Your task to perform on an android device: check out phone information Image 0: 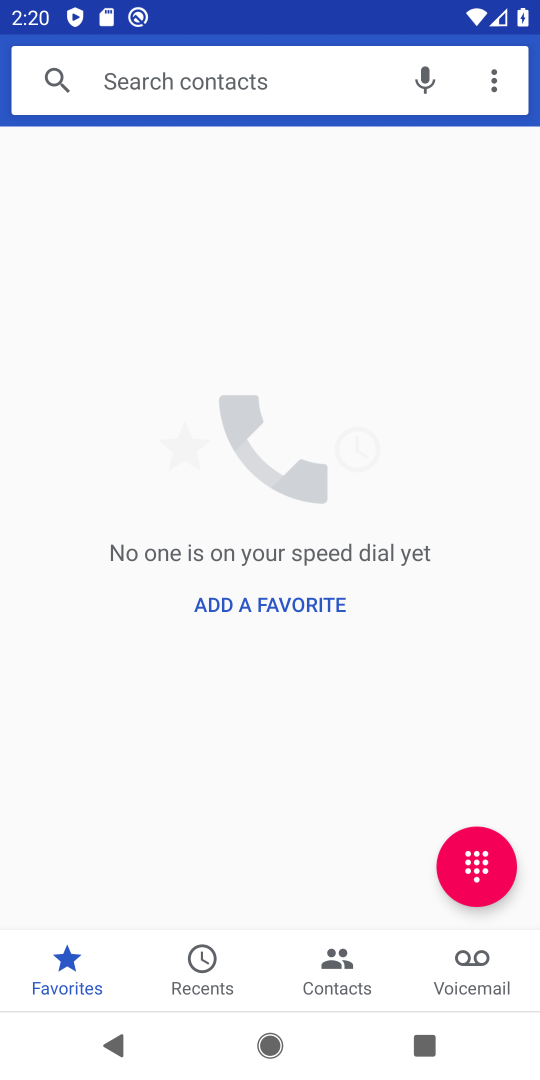
Step 0: press home button
Your task to perform on an android device: check out phone information Image 1: 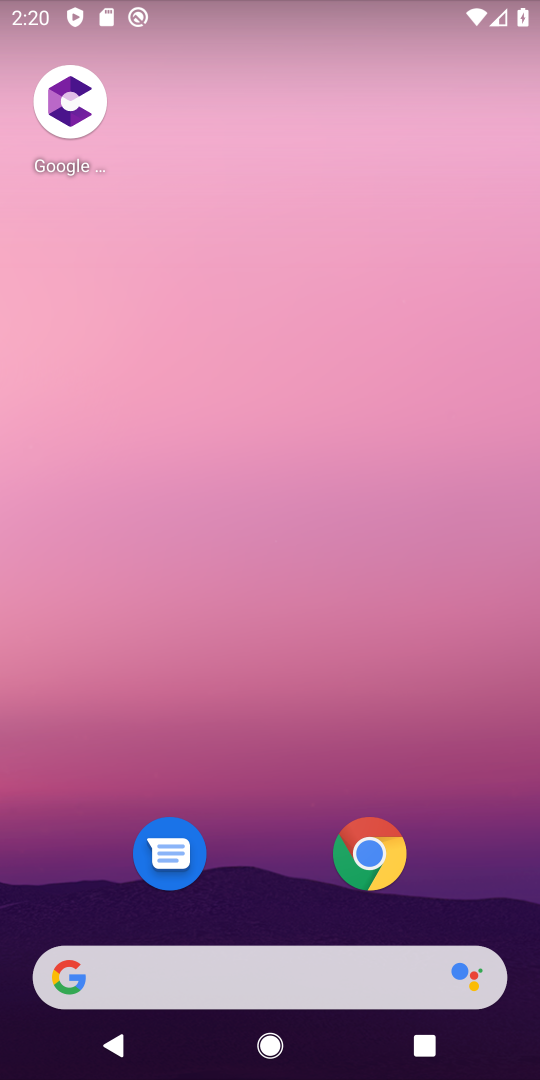
Step 1: drag from (298, 827) to (304, 185)
Your task to perform on an android device: check out phone information Image 2: 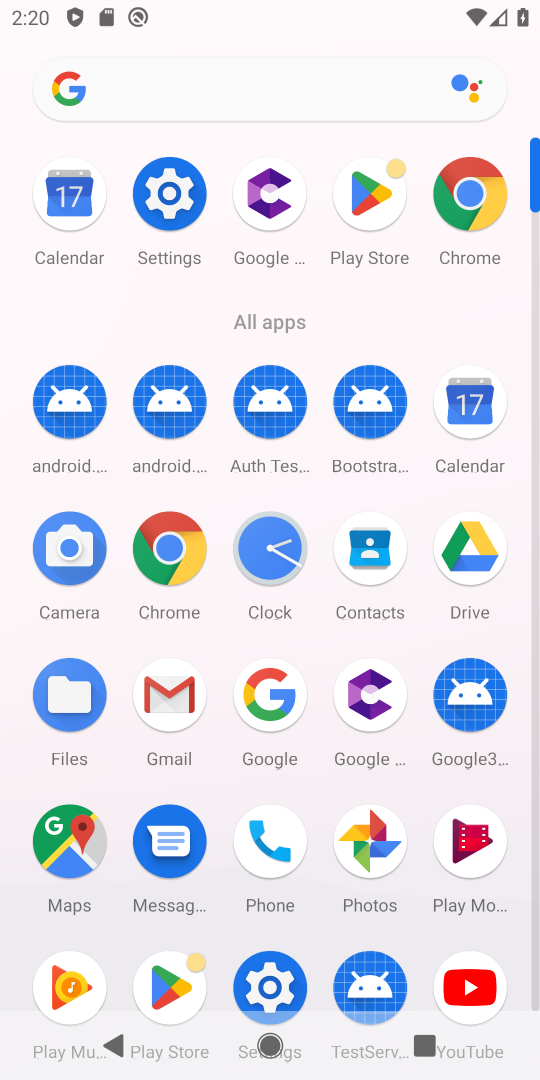
Step 2: click (276, 960)
Your task to perform on an android device: check out phone information Image 3: 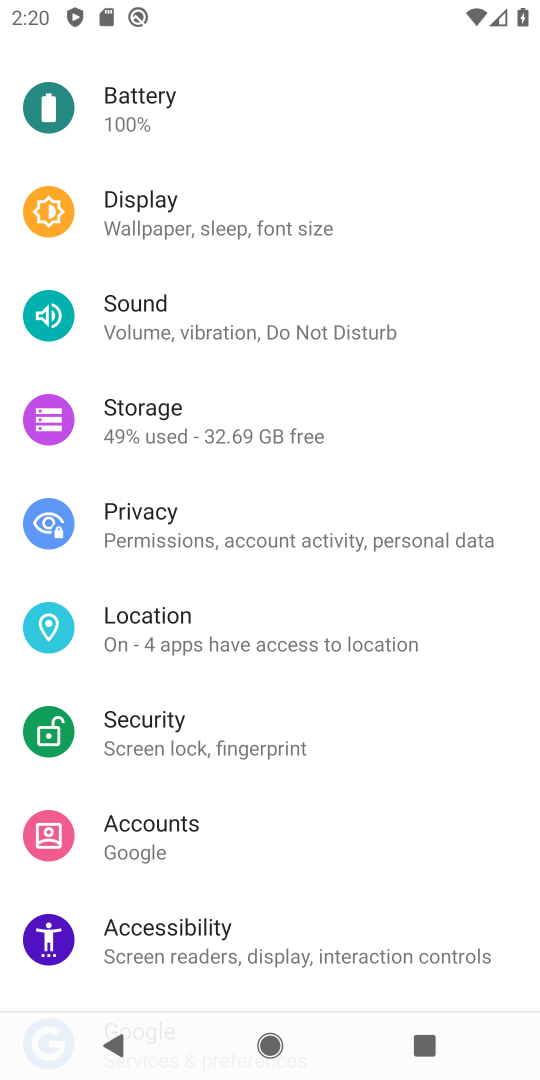
Step 3: drag from (399, 874) to (445, 309)
Your task to perform on an android device: check out phone information Image 4: 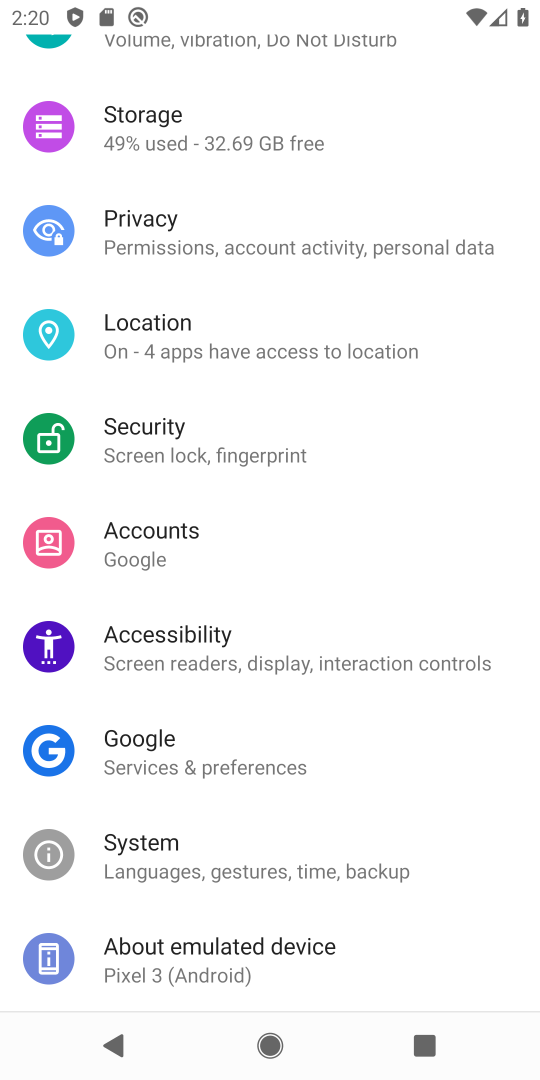
Step 4: click (253, 950)
Your task to perform on an android device: check out phone information Image 5: 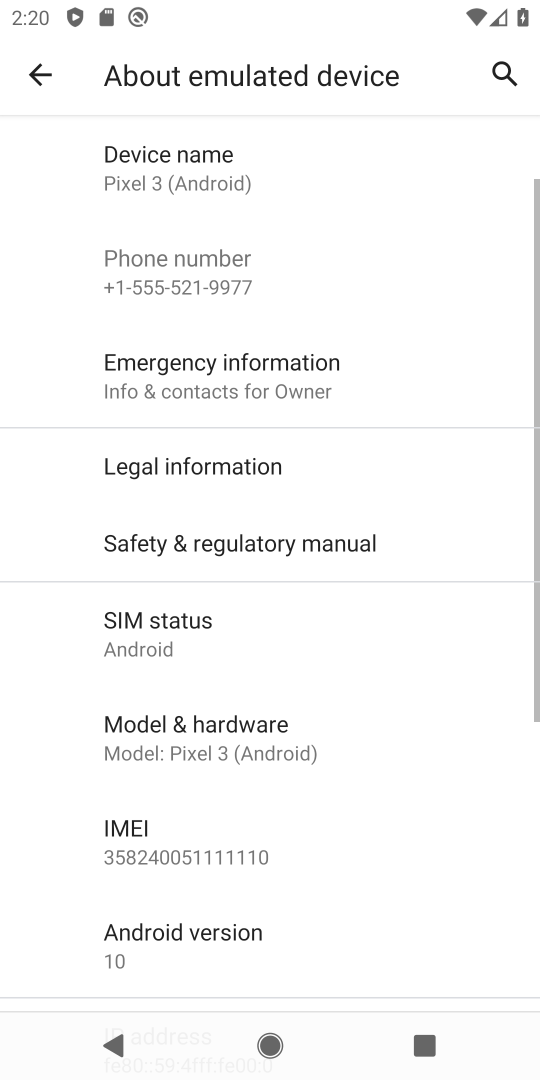
Step 5: click (256, 357)
Your task to perform on an android device: check out phone information Image 6: 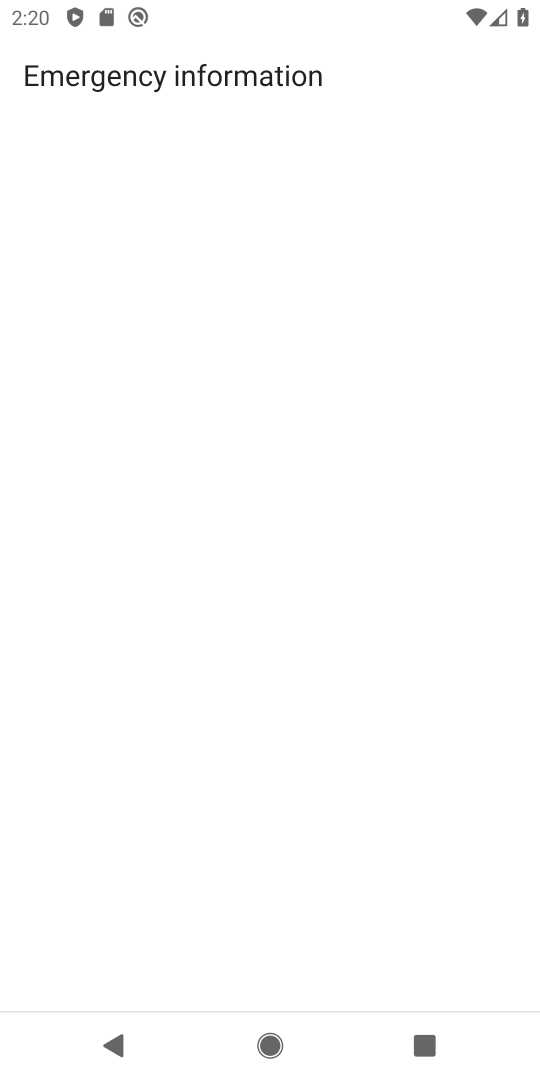
Step 6: task complete